Your task to perform on an android device: turn off smart reply in the gmail app Image 0: 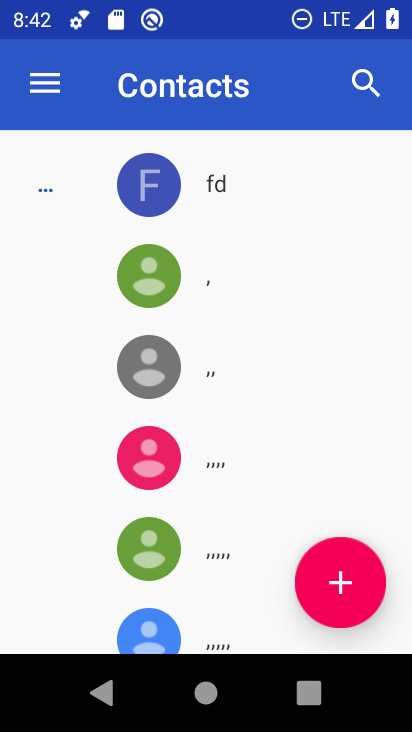
Step 0: press home button
Your task to perform on an android device: turn off smart reply in the gmail app Image 1: 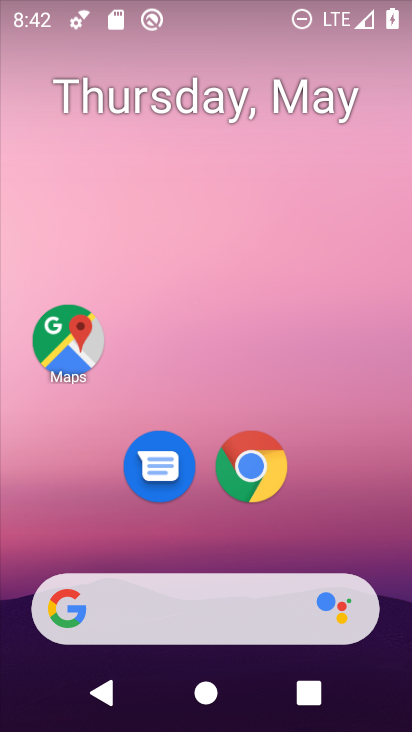
Step 1: drag from (359, 551) to (382, 2)
Your task to perform on an android device: turn off smart reply in the gmail app Image 2: 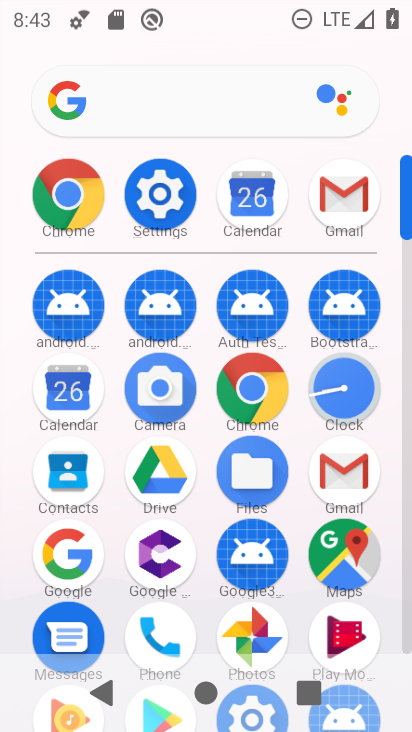
Step 2: click (337, 207)
Your task to perform on an android device: turn off smart reply in the gmail app Image 3: 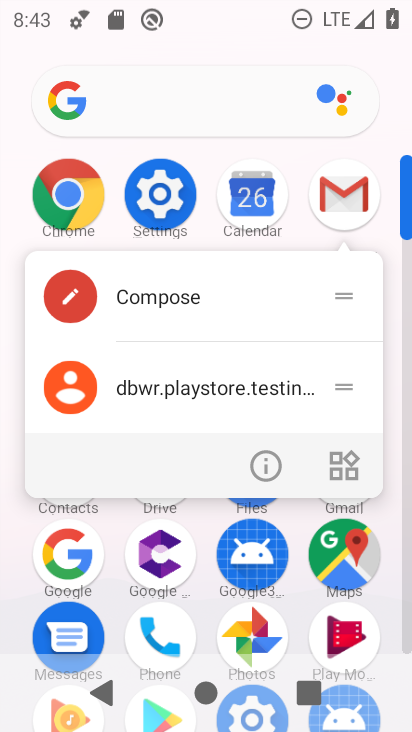
Step 3: click (339, 194)
Your task to perform on an android device: turn off smart reply in the gmail app Image 4: 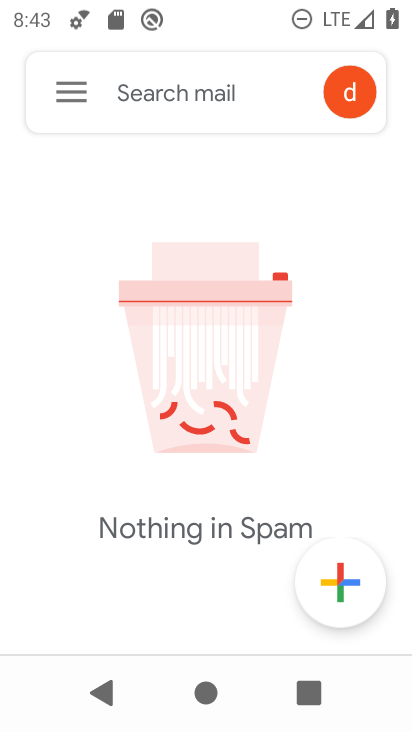
Step 4: click (340, 200)
Your task to perform on an android device: turn off smart reply in the gmail app Image 5: 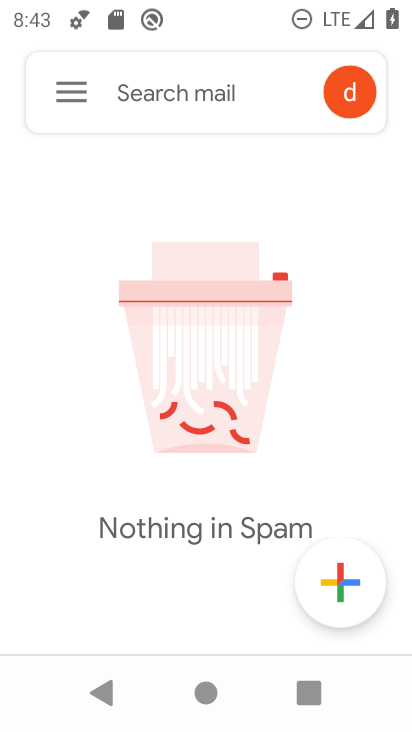
Step 5: click (88, 113)
Your task to perform on an android device: turn off smart reply in the gmail app Image 6: 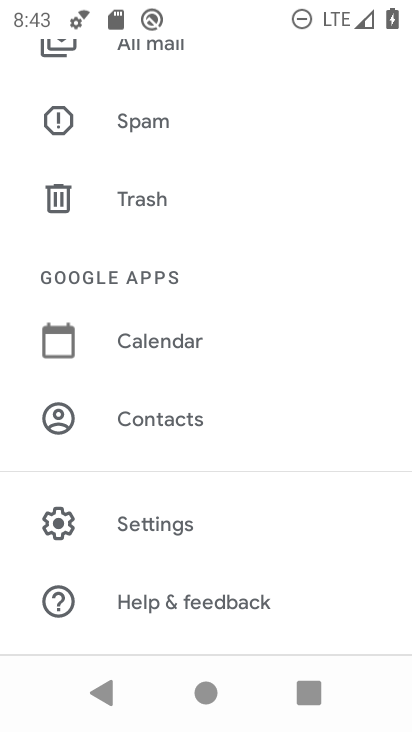
Step 6: click (156, 526)
Your task to perform on an android device: turn off smart reply in the gmail app Image 7: 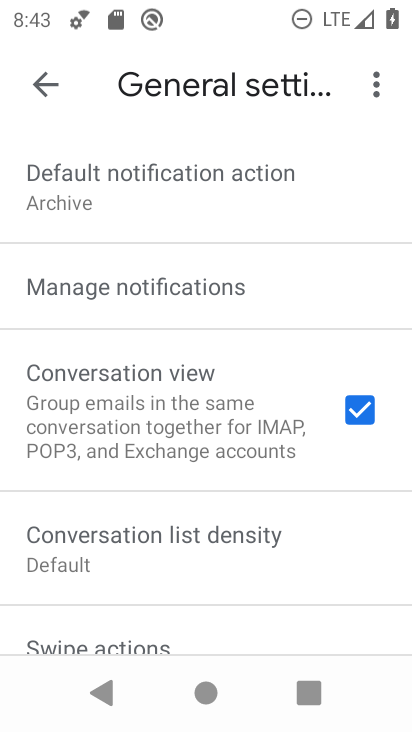
Step 7: click (40, 86)
Your task to perform on an android device: turn off smart reply in the gmail app Image 8: 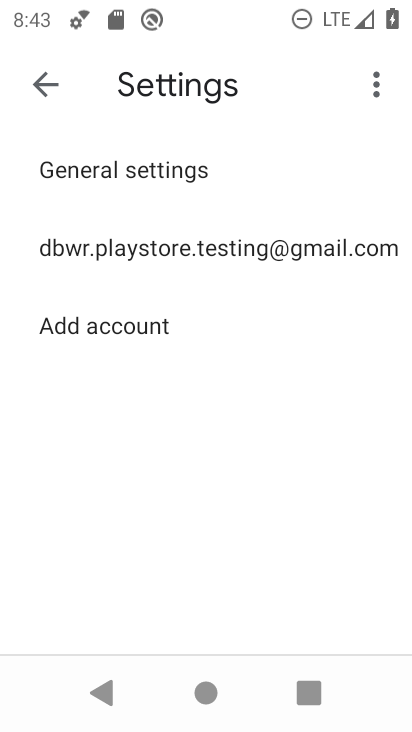
Step 8: click (96, 234)
Your task to perform on an android device: turn off smart reply in the gmail app Image 9: 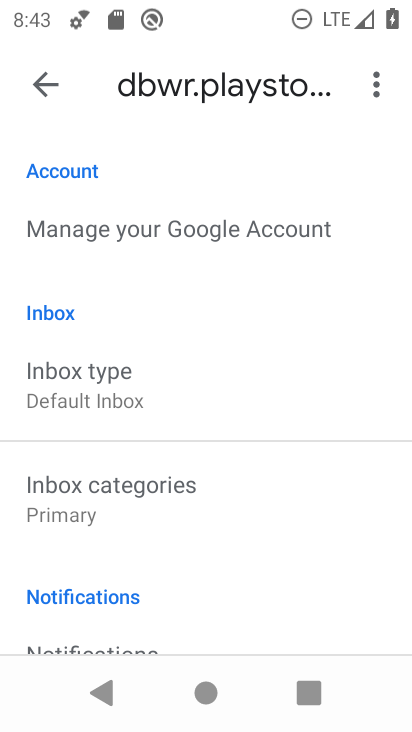
Step 9: drag from (212, 552) to (247, 52)
Your task to perform on an android device: turn off smart reply in the gmail app Image 10: 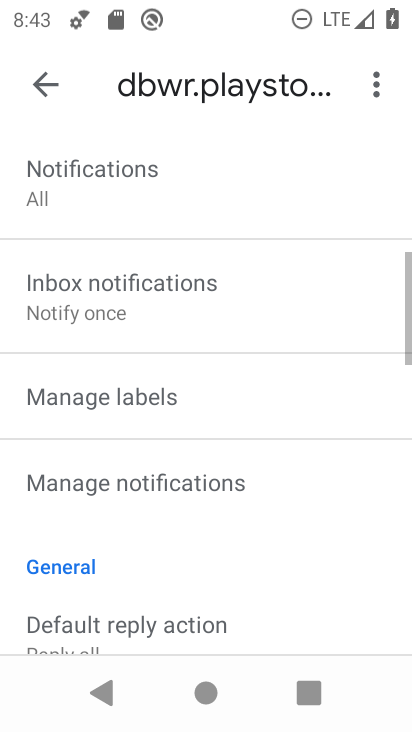
Step 10: drag from (212, 533) to (221, 75)
Your task to perform on an android device: turn off smart reply in the gmail app Image 11: 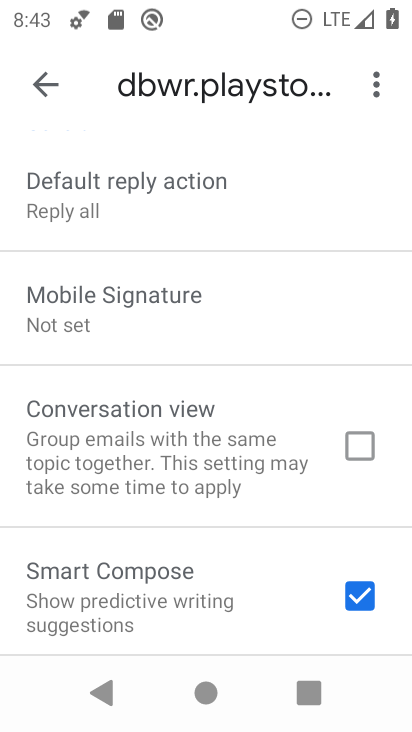
Step 11: drag from (167, 522) to (162, 130)
Your task to perform on an android device: turn off smart reply in the gmail app Image 12: 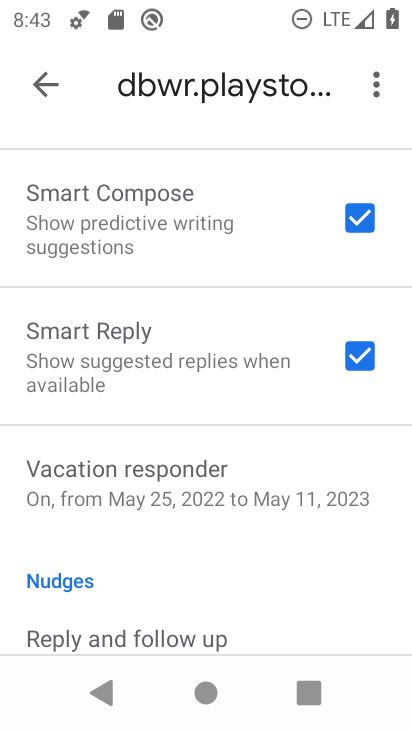
Step 12: click (346, 355)
Your task to perform on an android device: turn off smart reply in the gmail app Image 13: 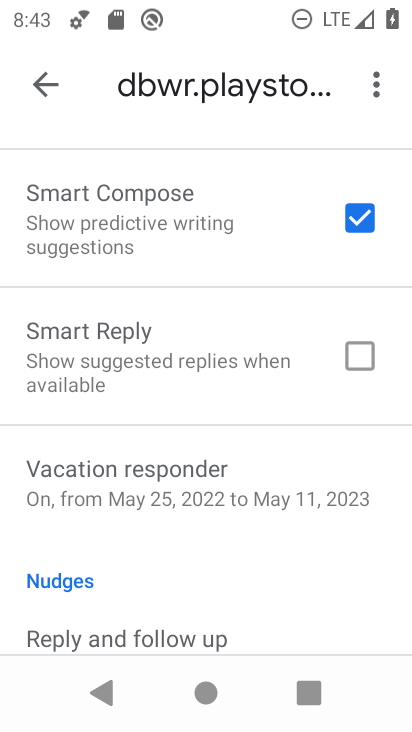
Step 13: task complete